Your task to perform on an android device: Do I have any events tomorrow? Image 0: 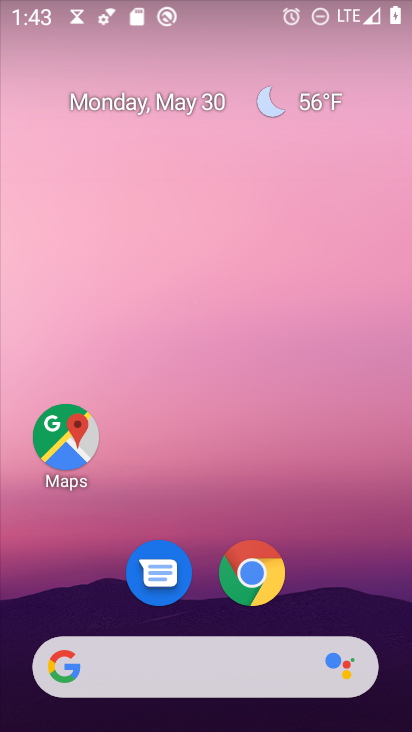
Step 0: drag from (312, 656) to (254, 2)
Your task to perform on an android device: Do I have any events tomorrow? Image 1: 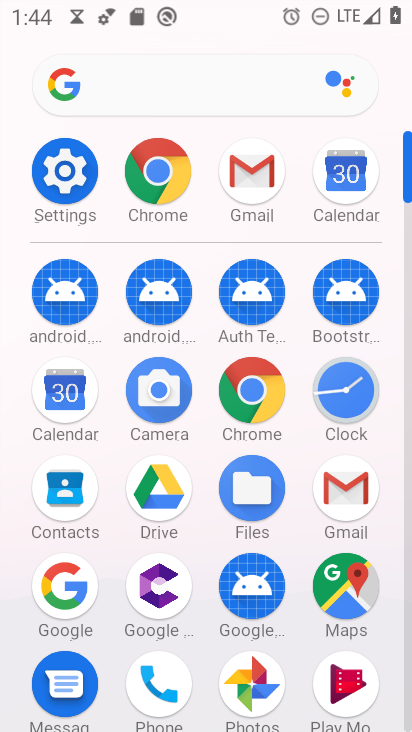
Step 1: click (64, 382)
Your task to perform on an android device: Do I have any events tomorrow? Image 2: 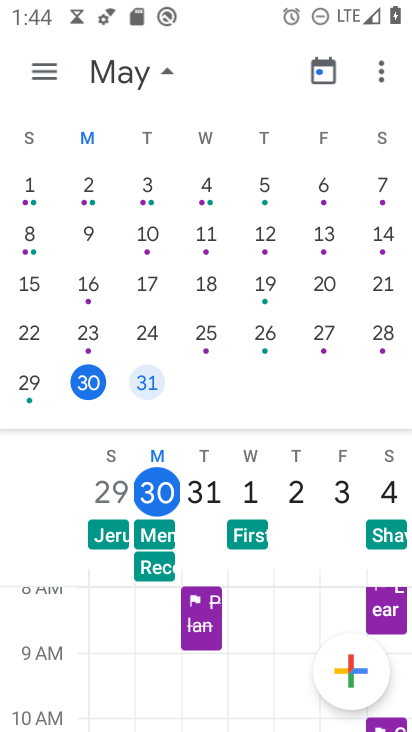
Step 2: click (151, 381)
Your task to perform on an android device: Do I have any events tomorrow? Image 3: 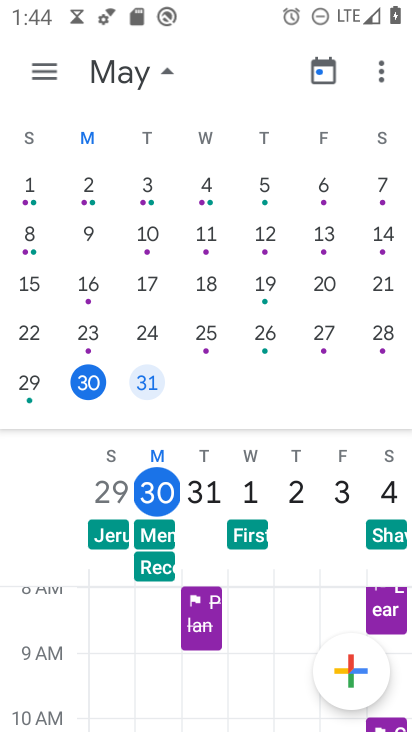
Step 3: task complete